Your task to perform on an android device: Show me the alarms in the clock app Image 0: 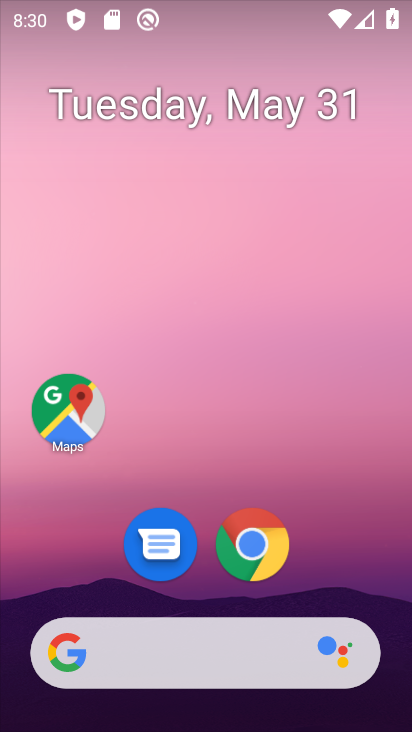
Step 0: drag from (336, 581) to (363, 124)
Your task to perform on an android device: Show me the alarms in the clock app Image 1: 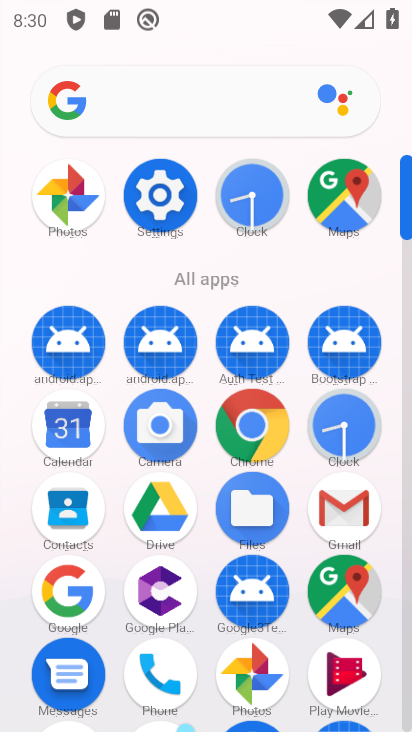
Step 1: click (347, 415)
Your task to perform on an android device: Show me the alarms in the clock app Image 2: 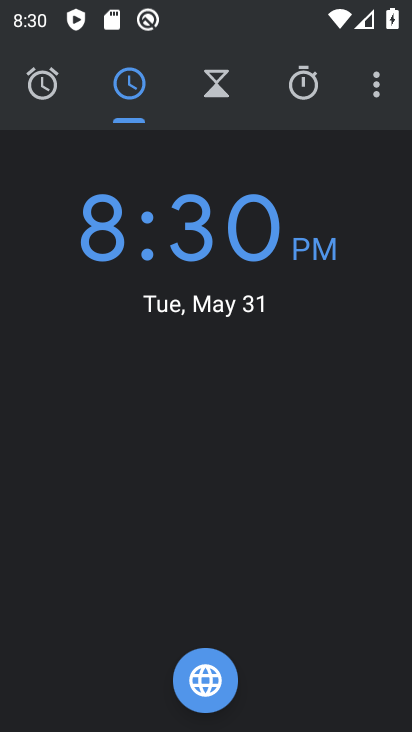
Step 2: click (41, 95)
Your task to perform on an android device: Show me the alarms in the clock app Image 3: 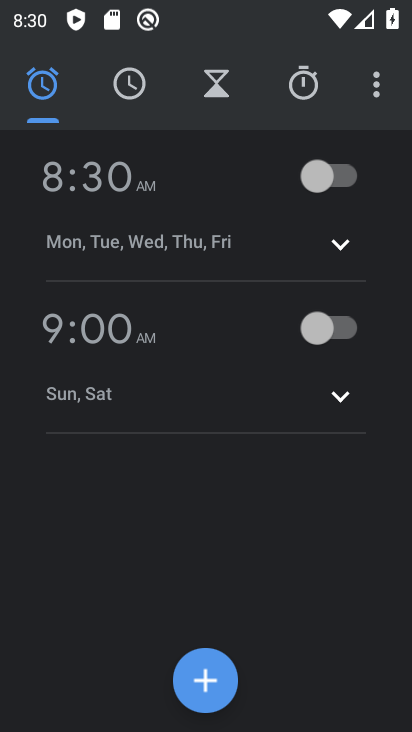
Step 3: task complete